Your task to perform on an android device: Open calendar and show me the second week of next month Image 0: 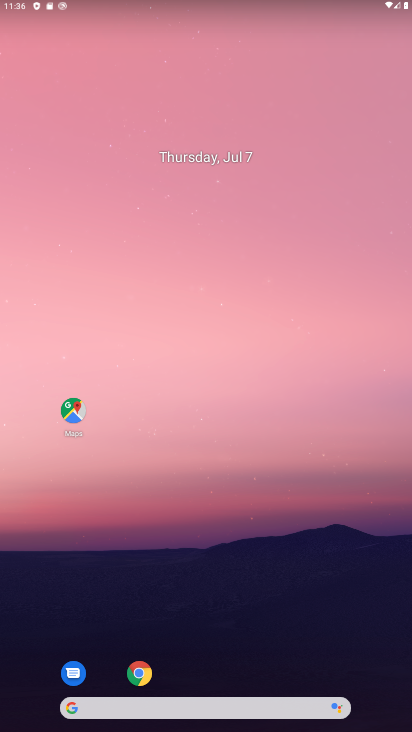
Step 0: drag from (211, 597) to (251, 376)
Your task to perform on an android device: Open calendar and show me the second week of next month Image 1: 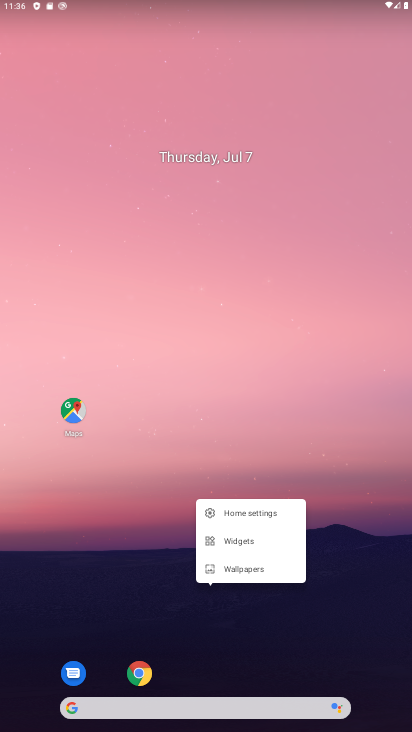
Step 1: click (160, 436)
Your task to perform on an android device: Open calendar and show me the second week of next month Image 2: 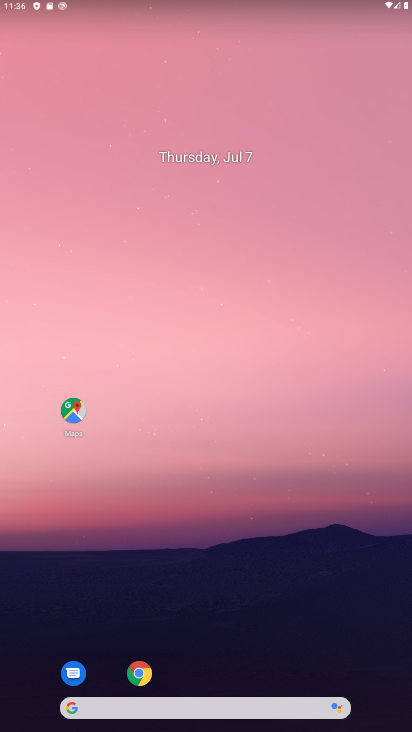
Step 2: drag from (160, 436) to (202, 218)
Your task to perform on an android device: Open calendar and show me the second week of next month Image 3: 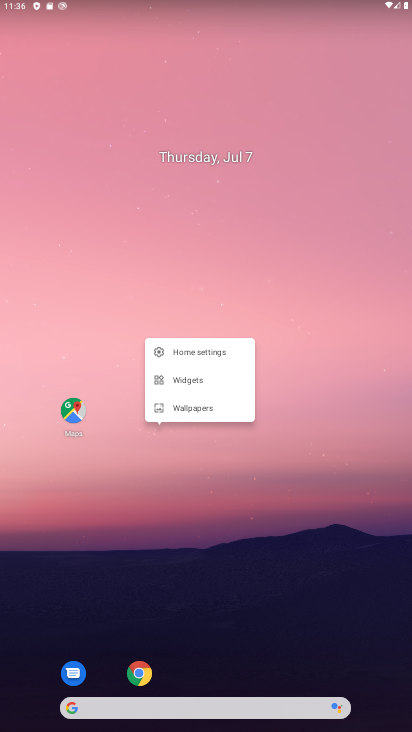
Step 3: click (286, 561)
Your task to perform on an android device: Open calendar and show me the second week of next month Image 4: 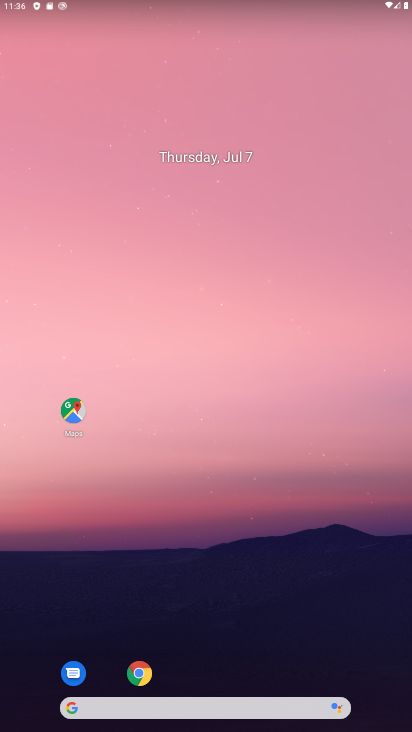
Step 4: drag from (286, 561) to (275, 195)
Your task to perform on an android device: Open calendar and show me the second week of next month Image 5: 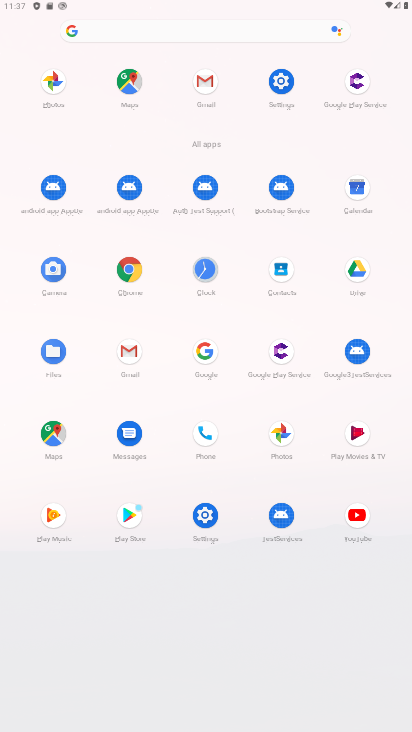
Step 5: click (361, 186)
Your task to perform on an android device: Open calendar and show me the second week of next month Image 6: 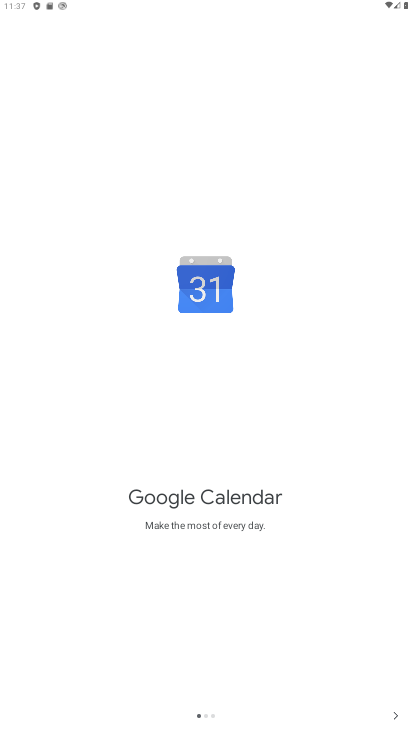
Step 6: click (395, 714)
Your task to perform on an android device: Open calendar and show me the second week of next month Image 7: 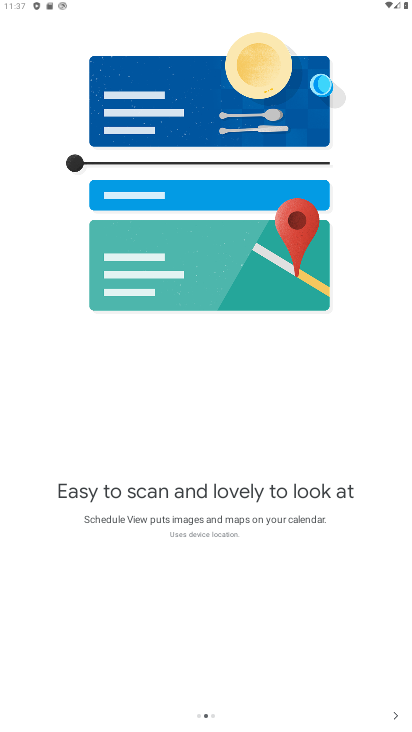
Step 7: click (395, 714)
Your task to perform on an android device: Open calendar and show me the second week of next month Image 8: 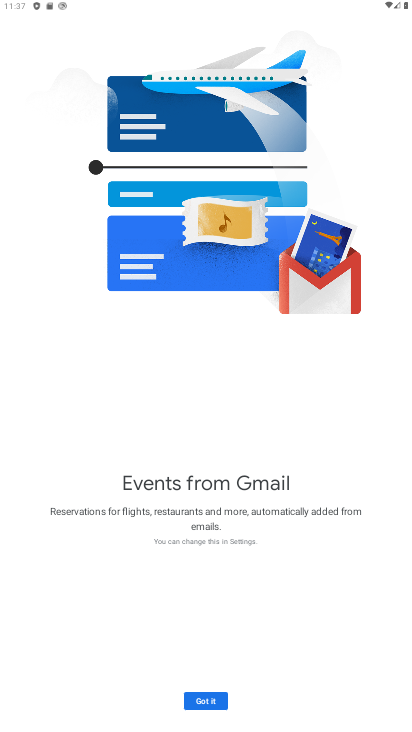
Step 8: click (218, 698)
Your task to perform on an android device: Open calendar and show me the second week of next month Image 9: 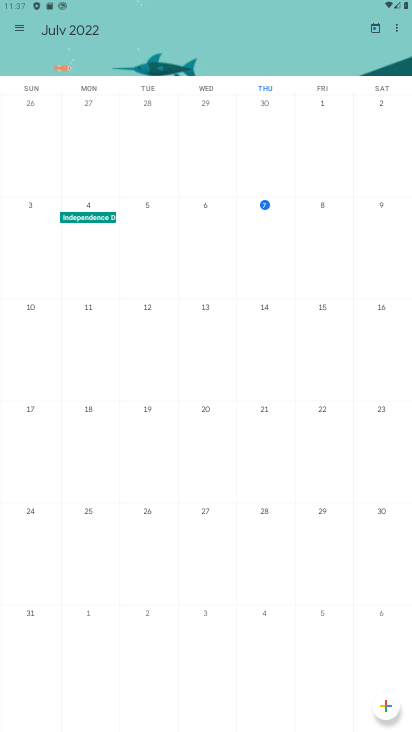
Step 9: click (378, 29)
Your task to perform on an android device: Open calendar and show me the second week of next month Image 10: 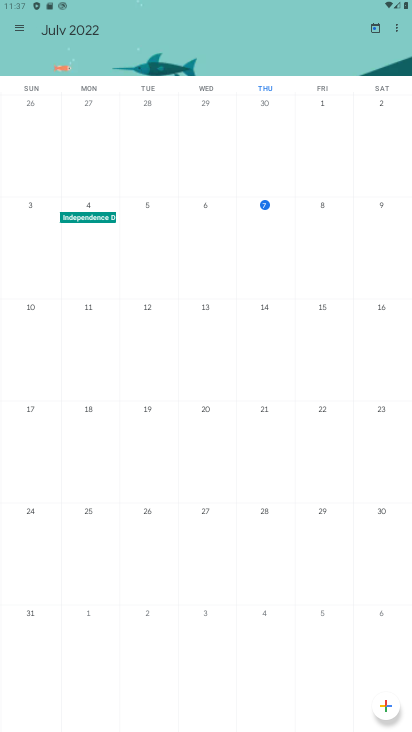
Step 10: task complete